Your task to perform on an android device: Open privacy settings Image 0: 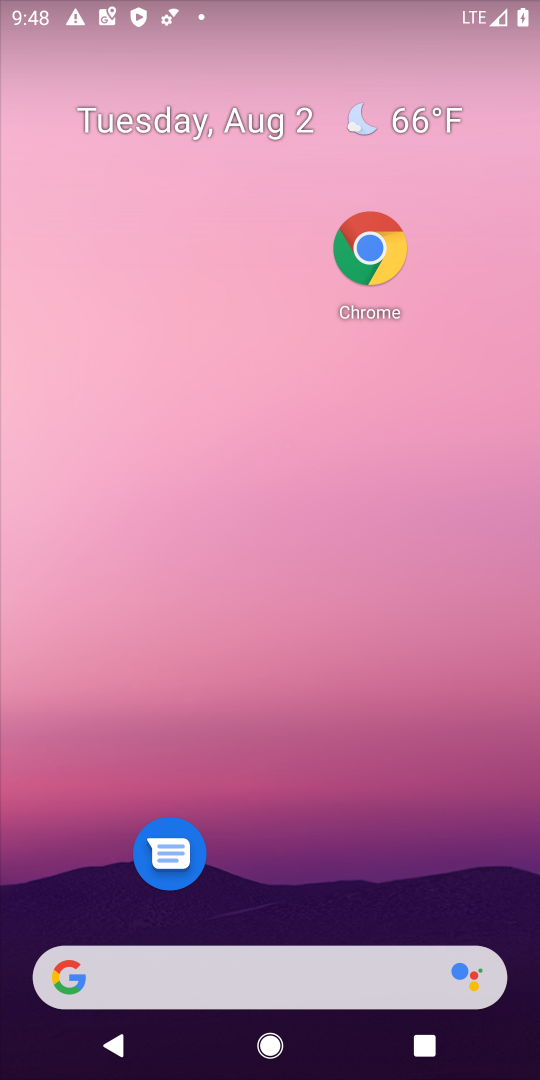
Step 0: drag from (240, 898) to (391, 7)
Your task to perform on an android device: Open privacy settings Image 1: 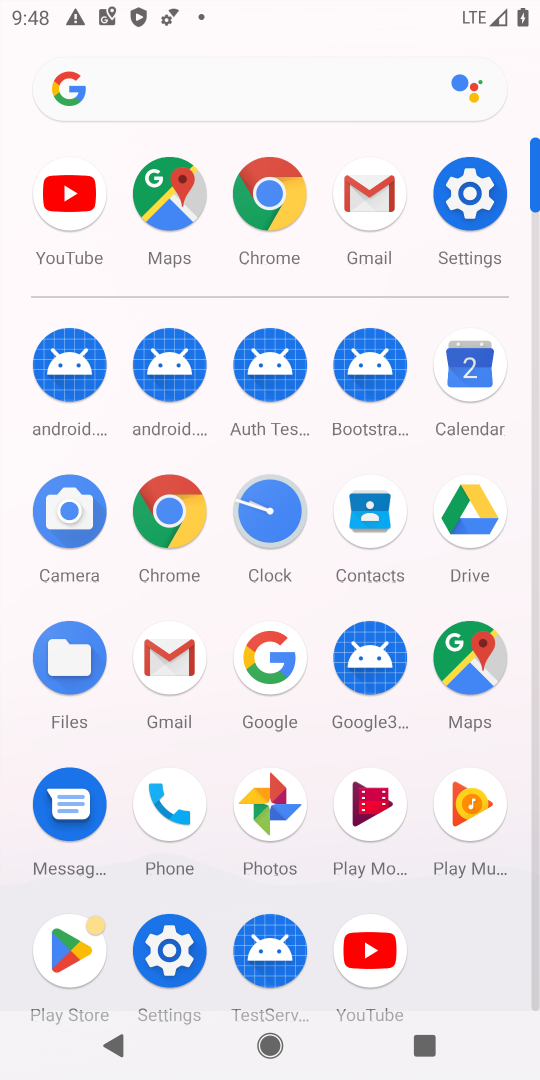
Step 1: click (466, 207)
Your task to perform on an android device: Open privacy settings Image 2: 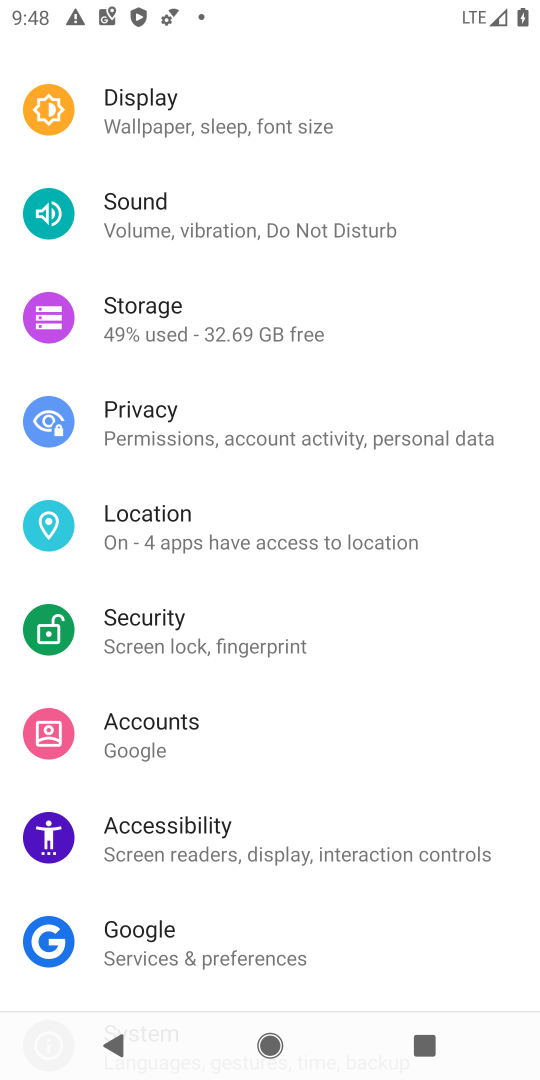
Step 2: click (183, 442)
Your task to perform on an android device: Open privacy settings Image 3: 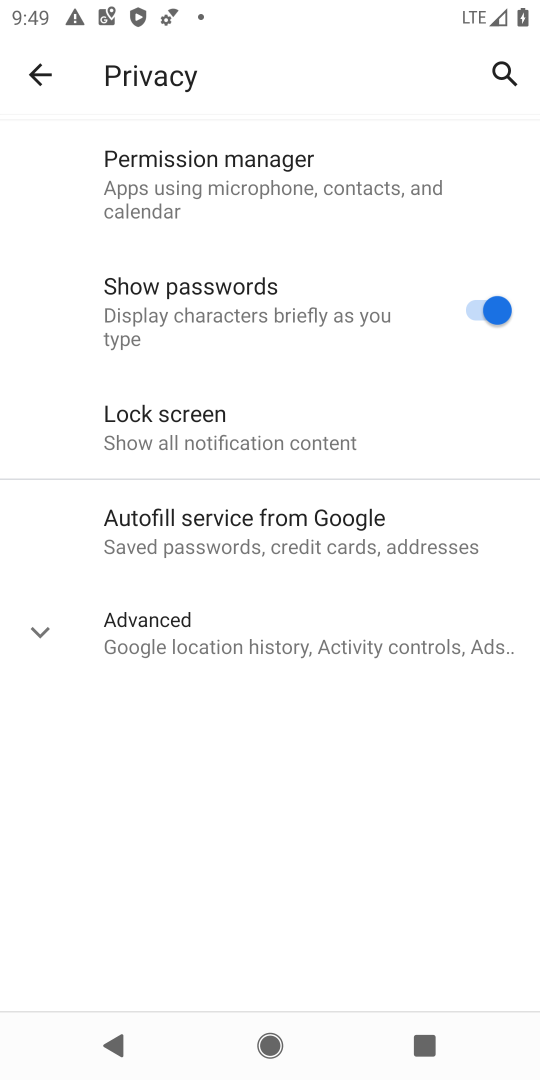
Step 3: task complete